Your task to perform on an android device: open app "DoorDash - Food Delivery" Image 0: 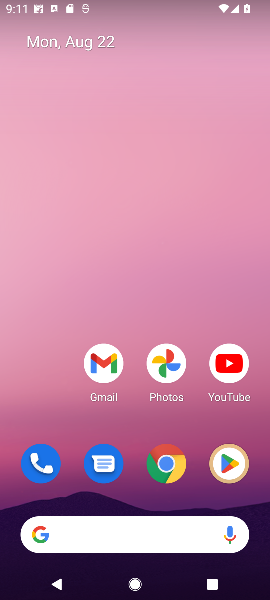
Step 0: click (228, 474)
Your task to perform on an android device: open app "DoorDash - Food Delivery" Image 1: 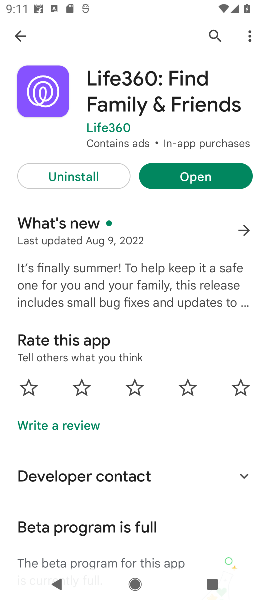
Step 1: click (16, 35)
Your task to perform on an android device: open app "DoorDash - Food Delivery" Image 2: 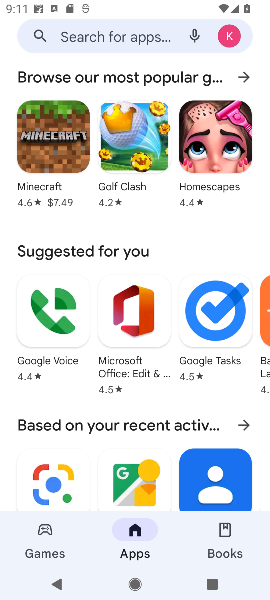
Step 2: click (77, 38)
Your task to perform on an android device: open app "DoorDash - Food Delivery" Image 3: 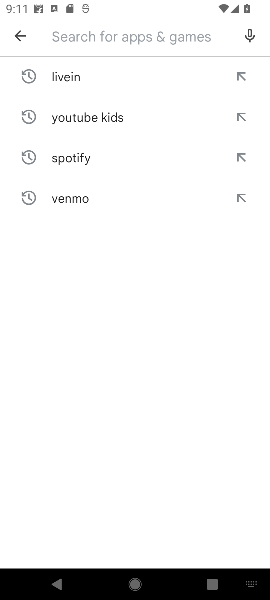
Step 3: type "DoorDash - Food Delivery"
Your task to perform on an android device: open app "DoorDash - Food Delivery" Image 4: 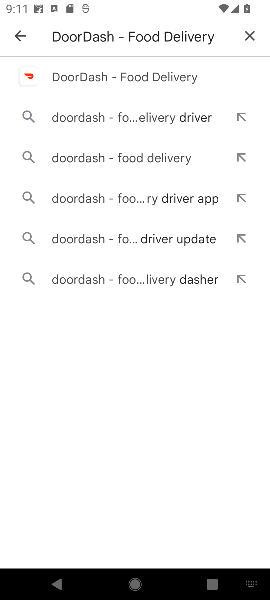
Step 4: click (56, 78)
Your task to perform on an android device: open app "DoorDash - Food Delivery" Image 5: 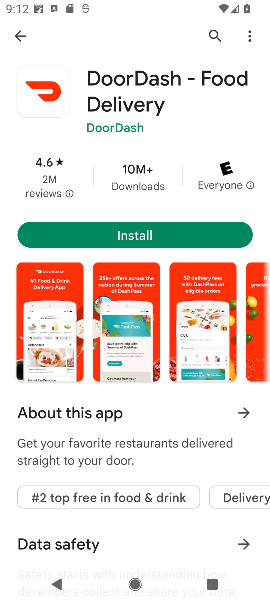
Step 5: click (132, 234)
Your task to perform on an android device: open app "DoorDash - Food Delivery" Image 6: 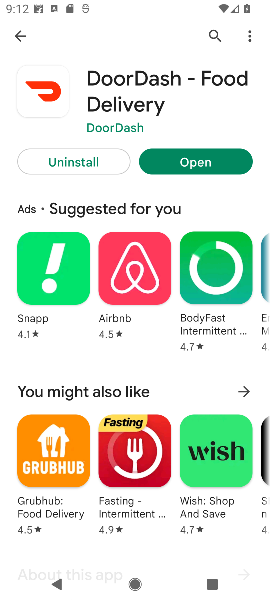
Step 6: click (190, 162)
Your task to perform on an android device: open app "DoorDash - Food Delivery" Image 7: 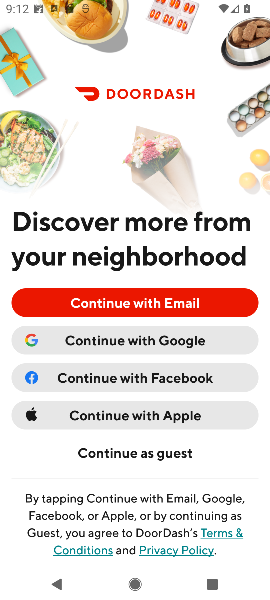
Step 7: task complete